Your task to perform on an android device: Go to display settings Image 0: 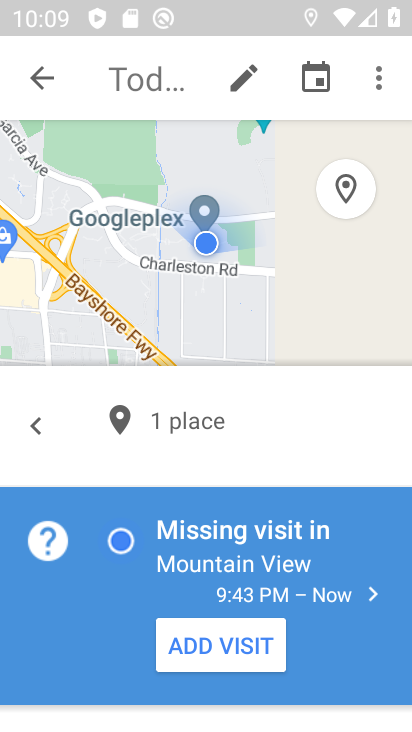
Step 0: press home button
Your task to perform on an android device: Go to display settings Image 1: 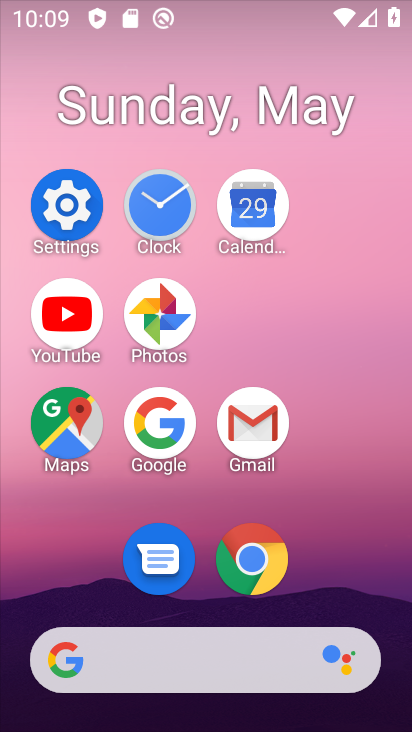
Step 1: click (75, 167)
Your task to perform on an android device: Go to display settings Image 2: 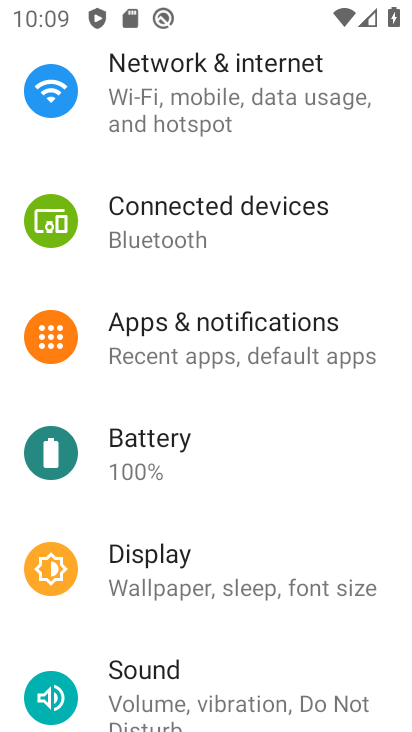
Step 2: click (246, 591)
Your task to perform on an android device: Go to display settings Image 3: 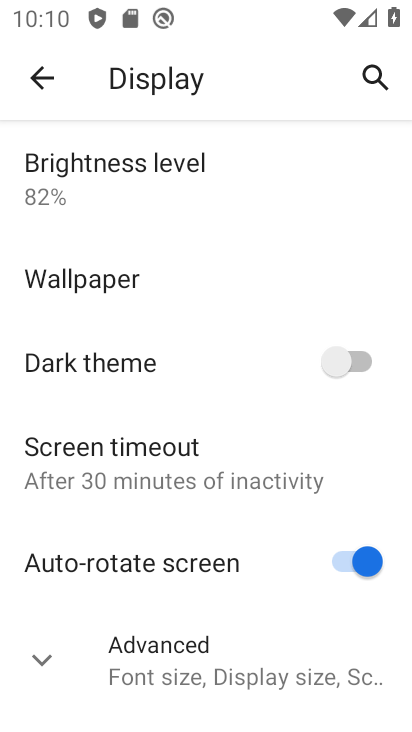
Step 3: task complete